Your task to perform on an android device: Open settings on Google Maps Image 0: 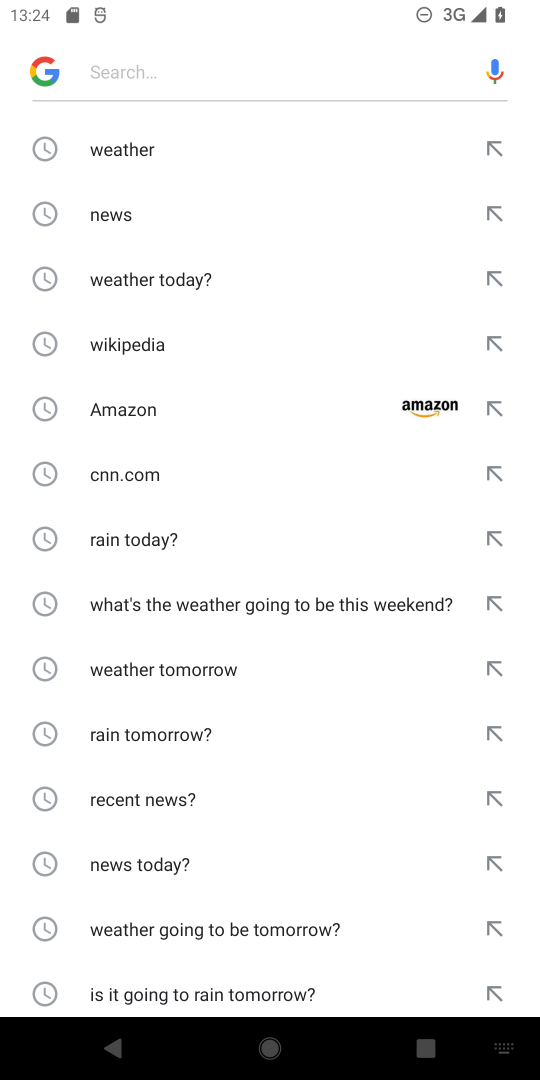
Step 0: press home button
Your task to perform on an android device: Open settings on Google Maps Image 1: 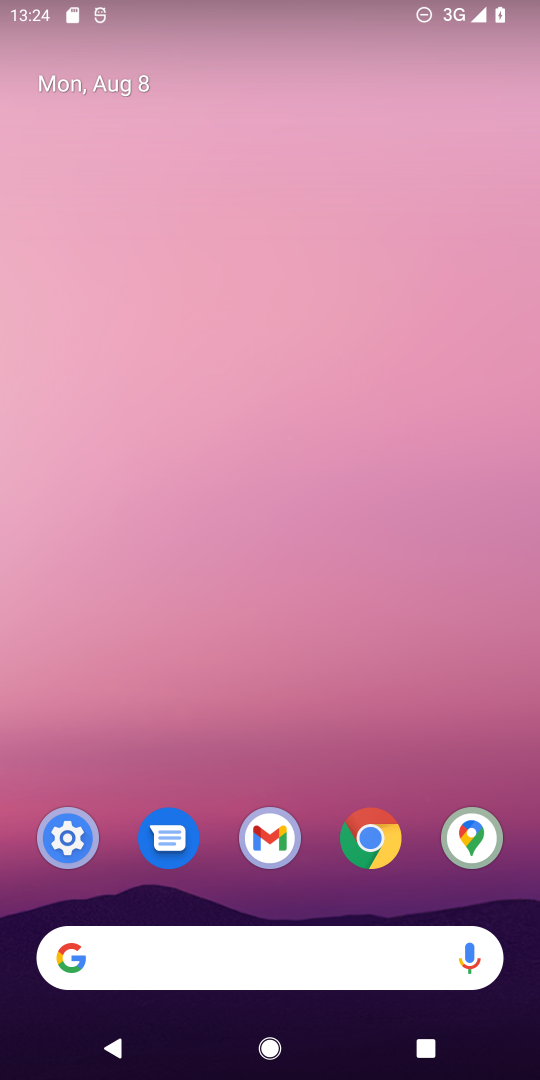
Step 1: click (471, 841)
Your task to perform on an android device: Open settings on Google Maps Image 2: 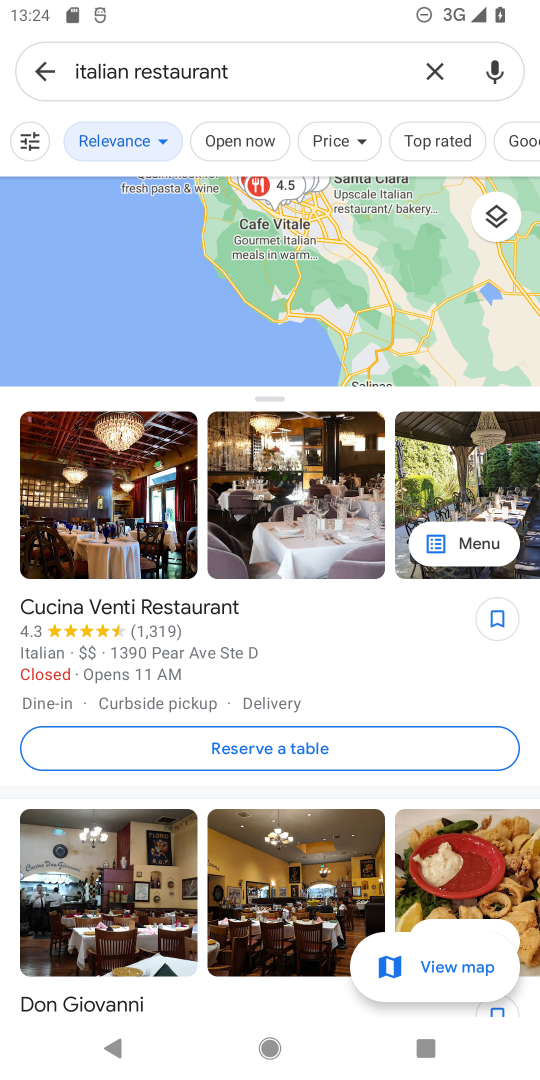
Step 2: click (35, 72)
Your task to perform on an android device: Open settings on Google Maps Image 3: 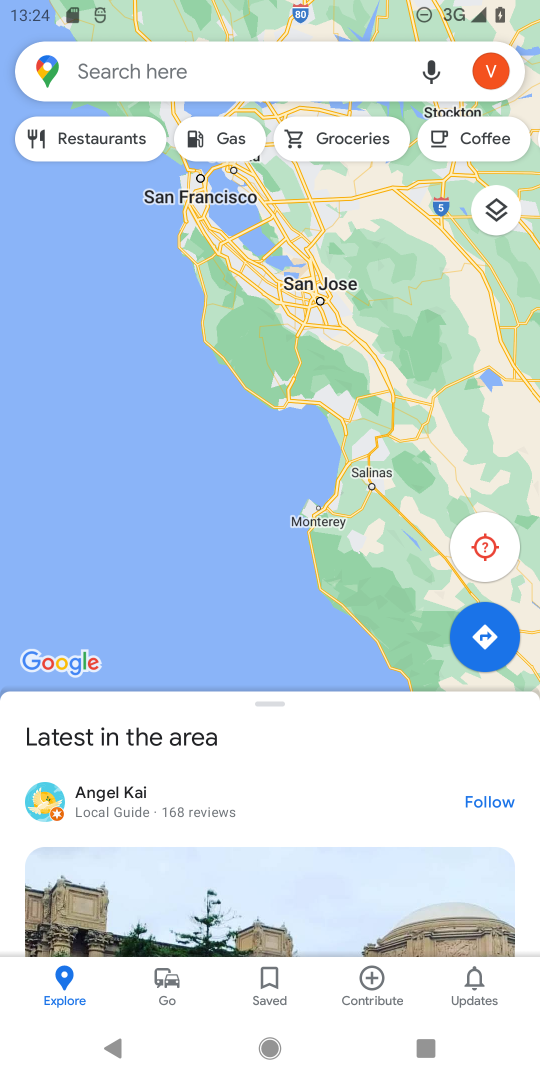
Step 3: click (498, 70)
Your task to perform on an android device: Open settings on Google Maps Image 4: 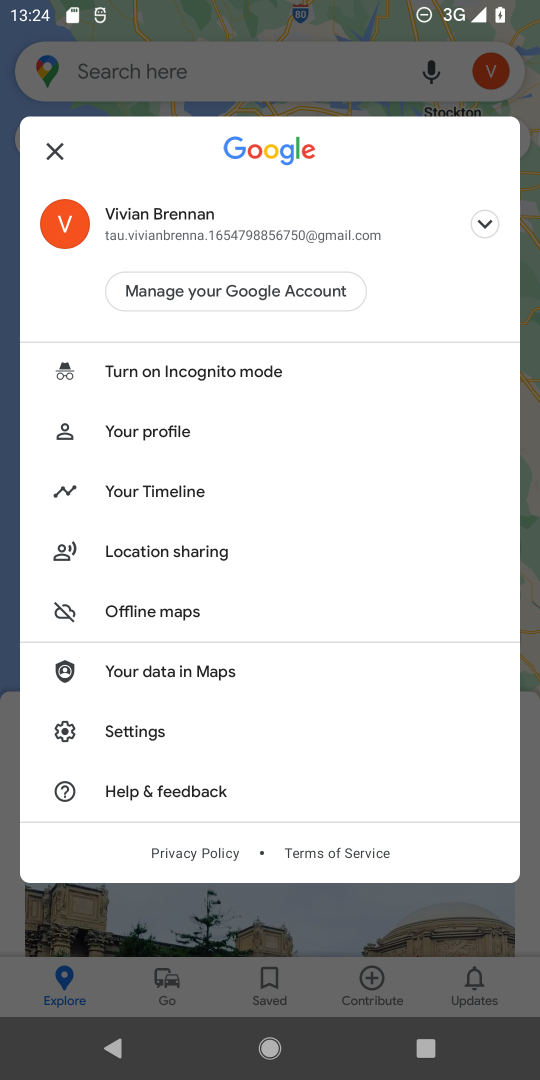
Step 4: click (130, 730)
Your task to perform on an android device: Open settings on Google Maps Image 5: 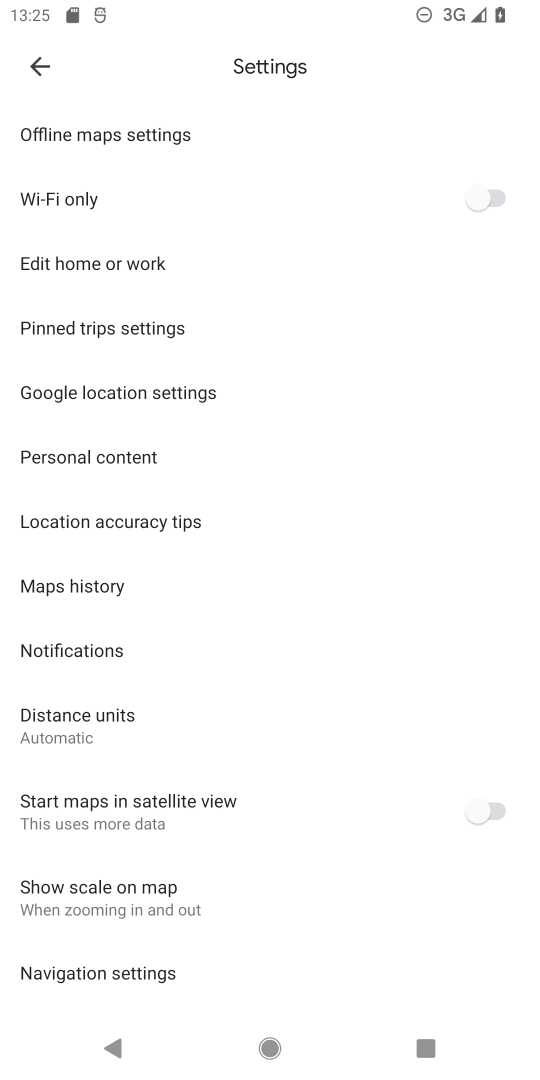
Step 5: task complete